Your task to perform on an android device: Open the phone app and click the voicemail tab. Image 0: 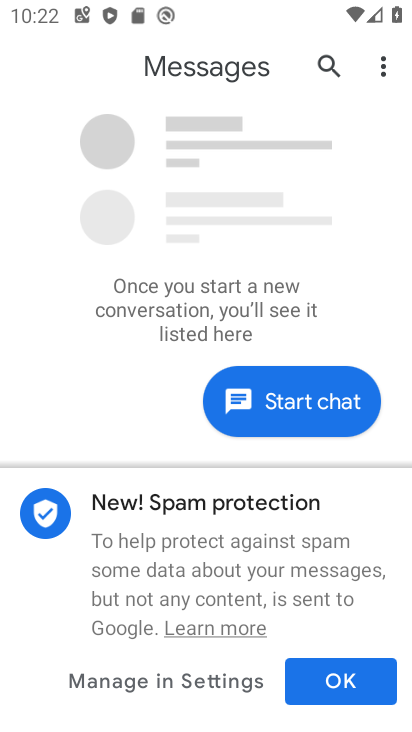
Step 0: press home button
Your task to perform on an android device: Open the phone app and click the voicemail tab. Image 1: 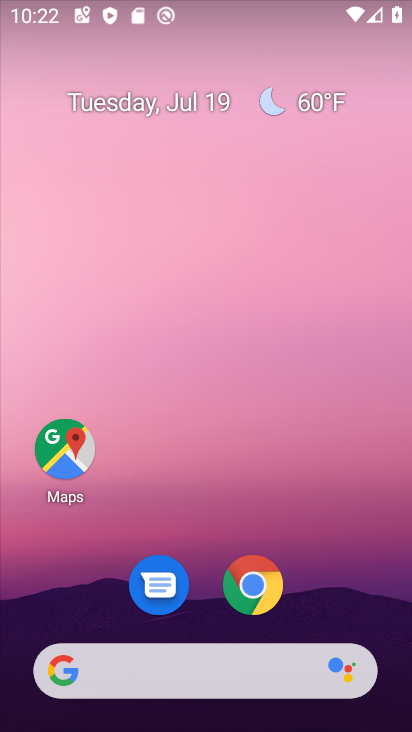
Step 1: drag from (260, 527) to (269, 17)
Your task to perform on an android device: Open the phone app and click the voicemail tab. Image 2: 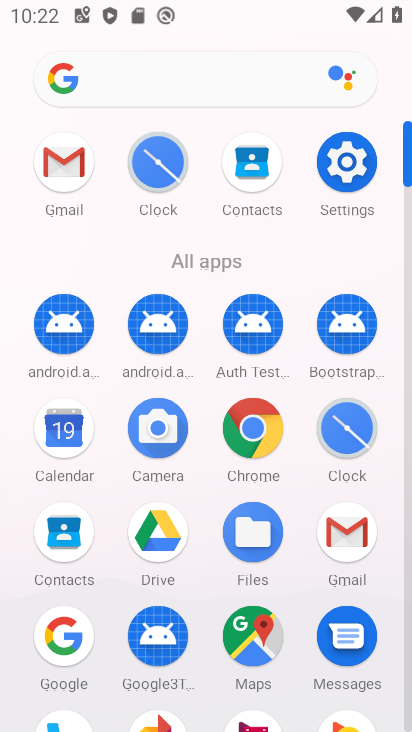
Step 2: drag from (199, 561) to (210, 196)
Your task to perform on an android device: Open the phone app and click the voicemail tab. Image 3: 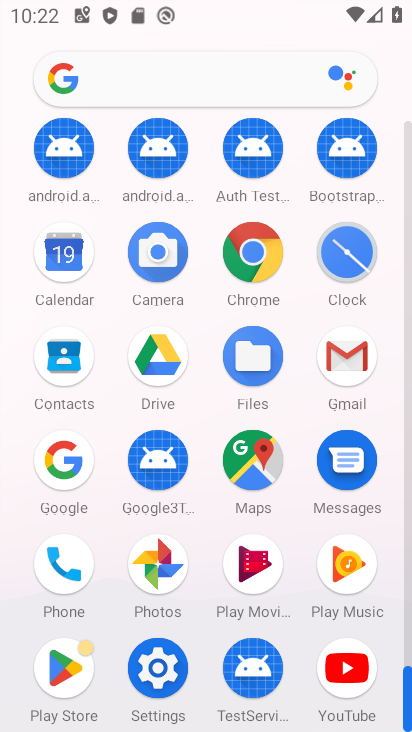
Step 3: click (69, 553)
Your task to perform on an android device: Open the phone app and click the voicemail tab. Image 4: 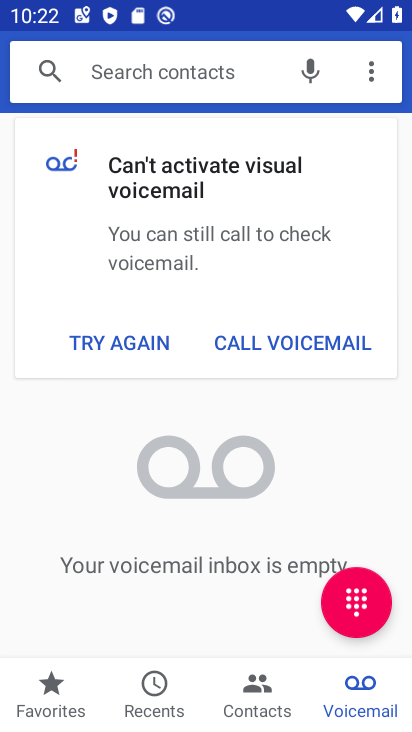
Step 4: click (359, 690)
Your task to perform on an android device: Open the phone app and click the voicemail tab. Image 5: 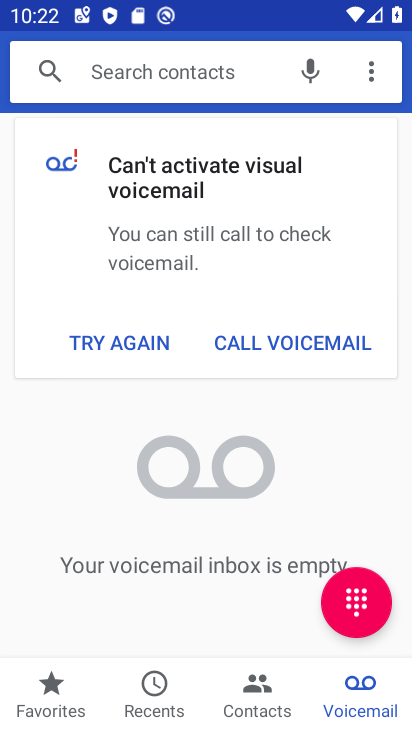
Step 5: task complete